Your task to perform on an android device: set the stopwatch Image 0: 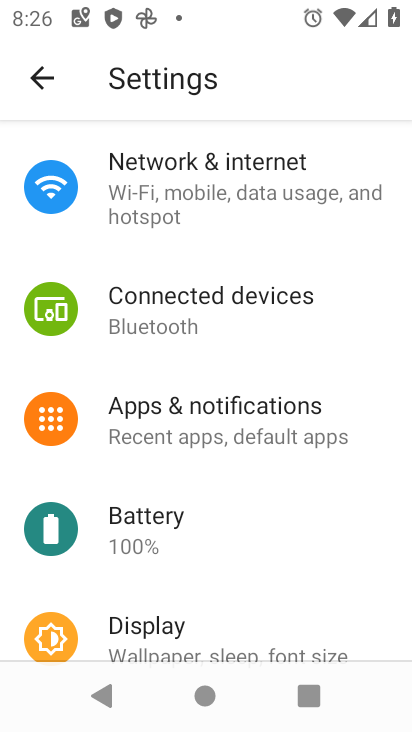
Step 0: press home button
Your task to perform on an android device: set the stopwatch Image 1: 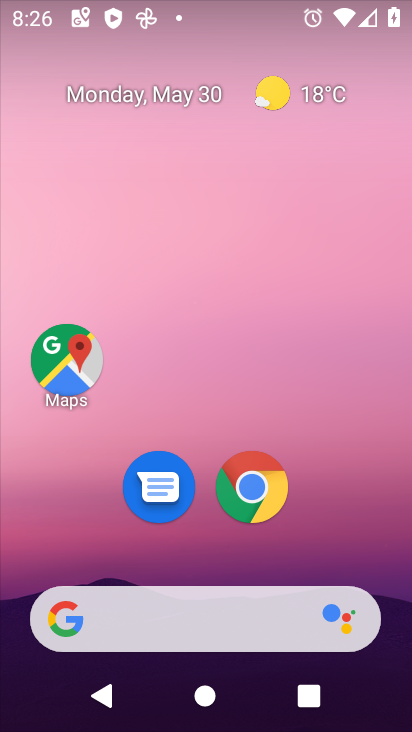
Step 1: drag from (338, 552) to (293, 134)
Your task to perform on an android device: set the stopwatch Image 2: 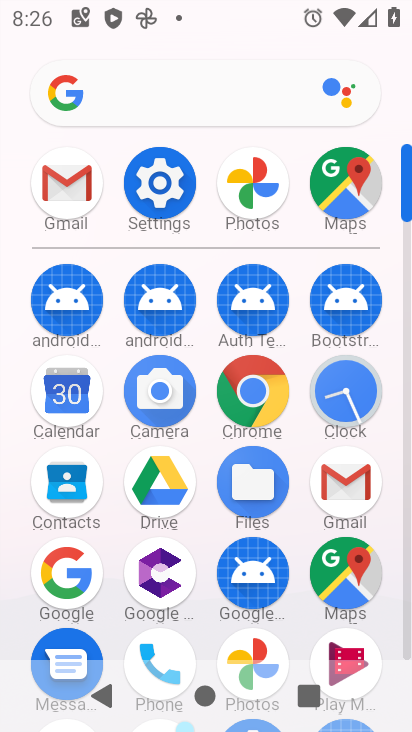
Step 2: click (363, 416)
Your task to perform on an android device: set the stopwatch Image 3: 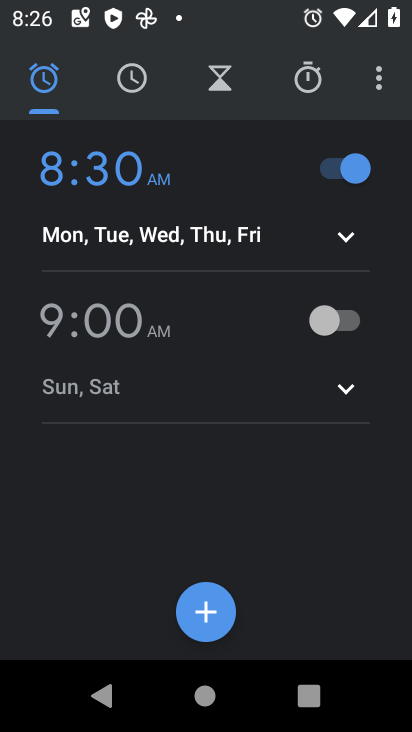
Step 3: click (313, 93)
Your task to perform on an android device: set the stopwatch Image 4: 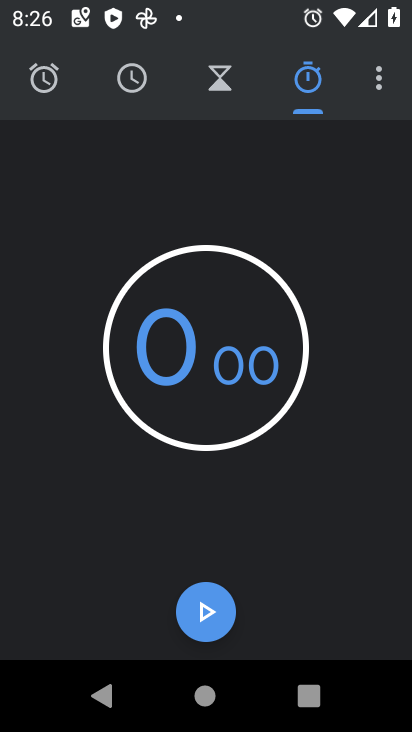
Step 4: click (182, 369)
Your task to perform on an android device: set the stopwatch Image 5: 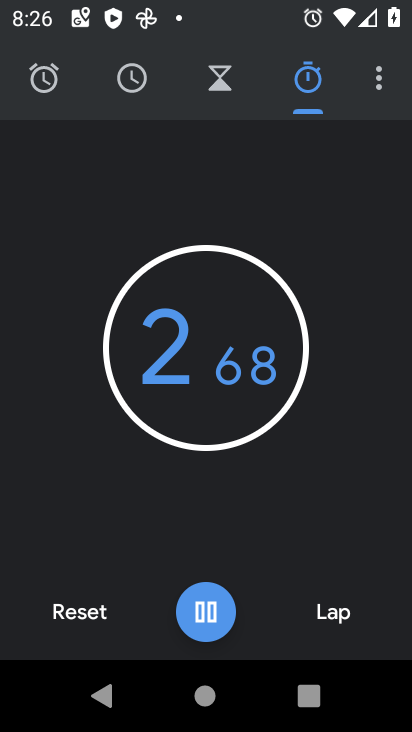
Step 5: task complete